Your task to perform on an android device: add a contact in the contacts app Image 0: 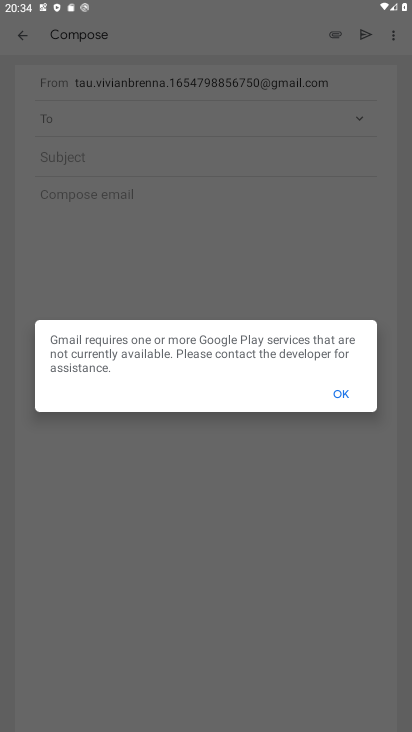
Step 0: press home button
Your task to perform on an android device: add a contact in the contacts app Image 1: 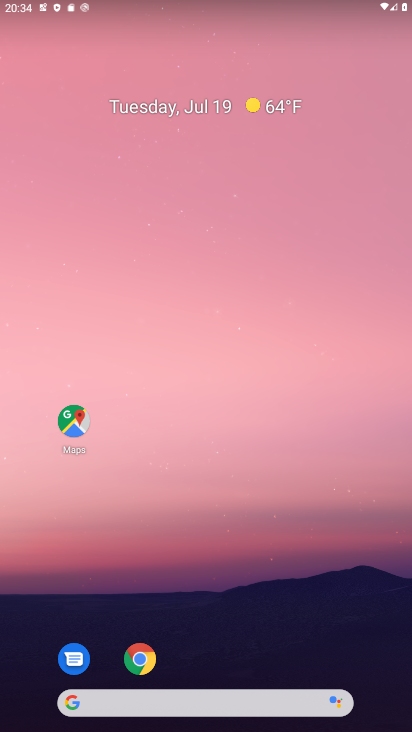
Step 1: drag from (221, 640) to (217, 6)
Your task to perform on an android device: add a contact in the contacts app Image 2: 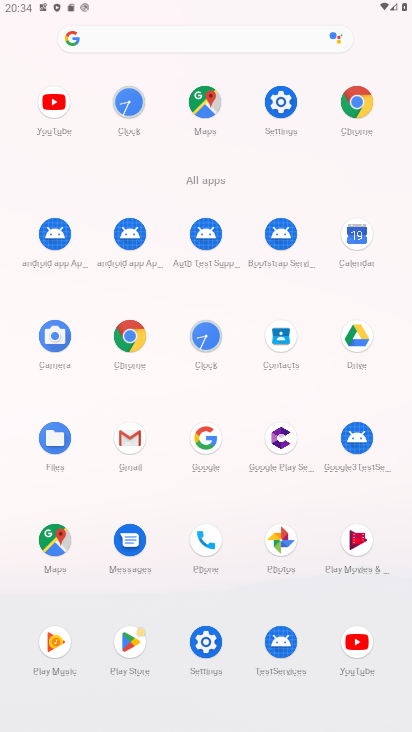
Step 2: click (294, 350)
Your task to perform on an android device: add a contact in the contacts app Image 3: 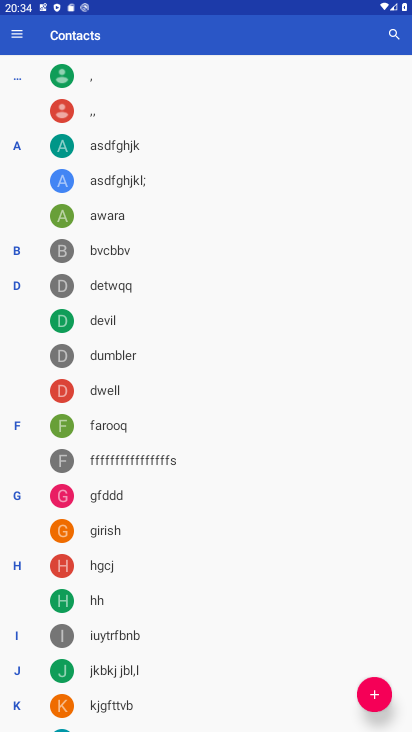
Step 3: click (376, 697)
Your task to perform on an android device: add a contact in the contacts app Image 4: 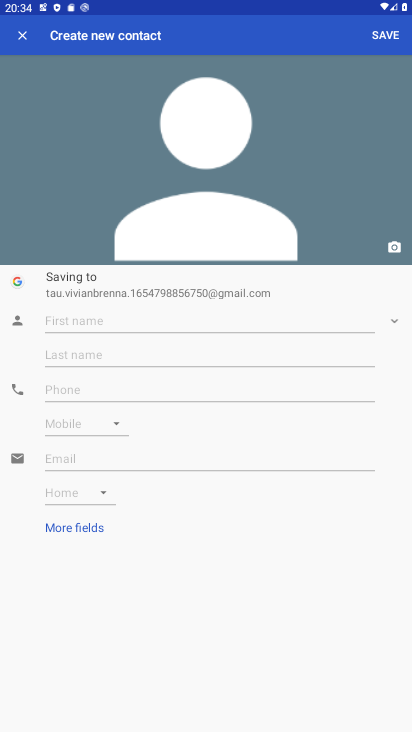
Step 4: click (118, 320)
Your task to perform on an android device: add a contact in the contacts app Image 5: 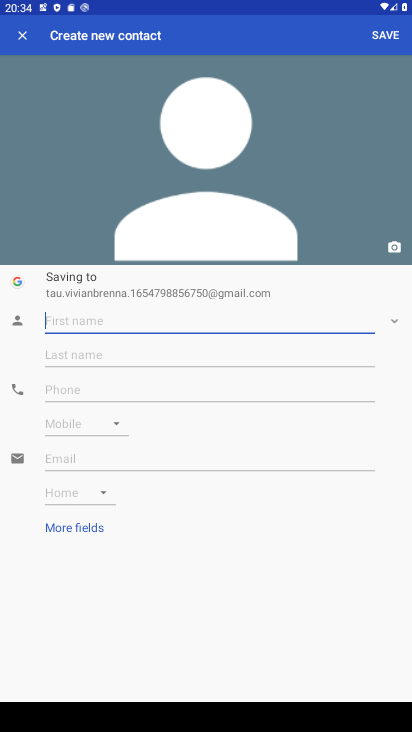
Step 5: type "iujhgfd"
Your task to perform on an android device: add a contact in the contacts app Image 6: 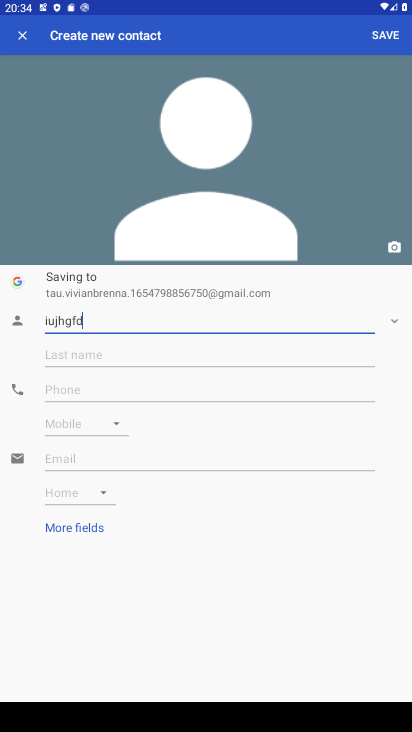
Step 6: click (324, 384)
Your task to perform on an android device: add a contact in the contacts app Image 7: 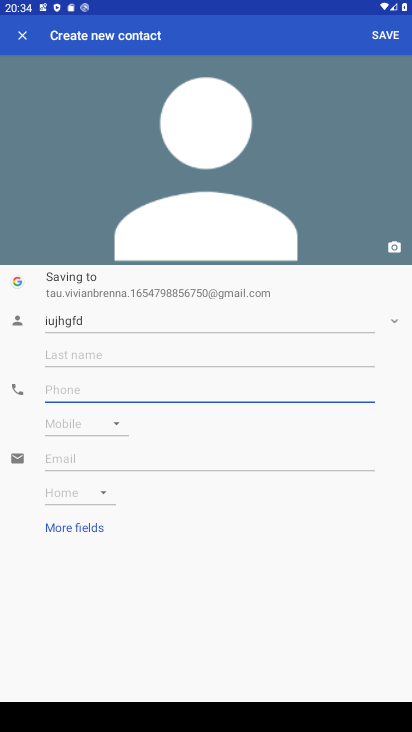
Step 7: type "987654"
Your task to perform on an android device: add a contact in the contacts app Image 8: 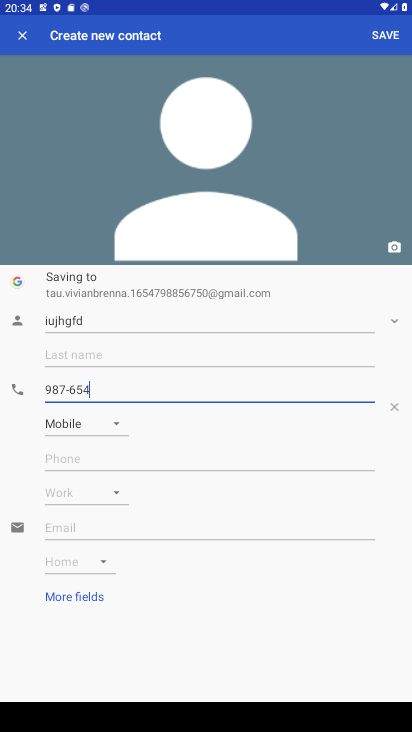
Step 8: click (382, 48)
Your task to perform on an android device: add a contact in the contacts app Image 9: 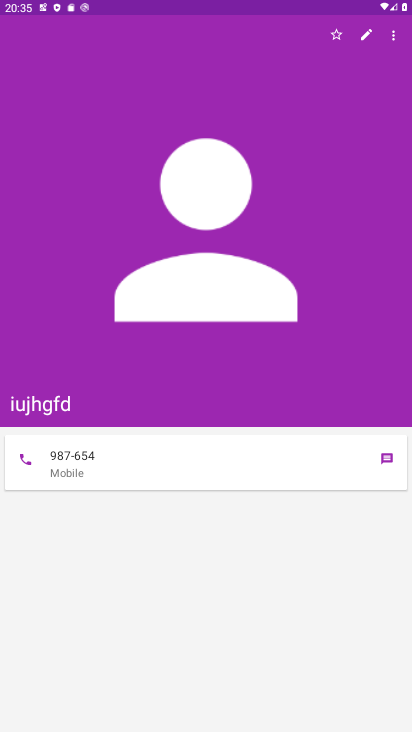
Step 9: task complete